Your task to perform on an android device: Go to sound settings Image 0: 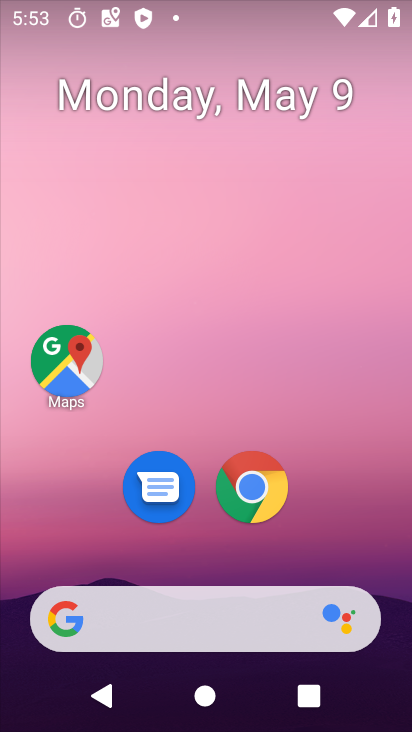
Step 0: drag from (302, 555) to (291, 126)
Your task to perform on an android device: Go to sound settings Image 1: 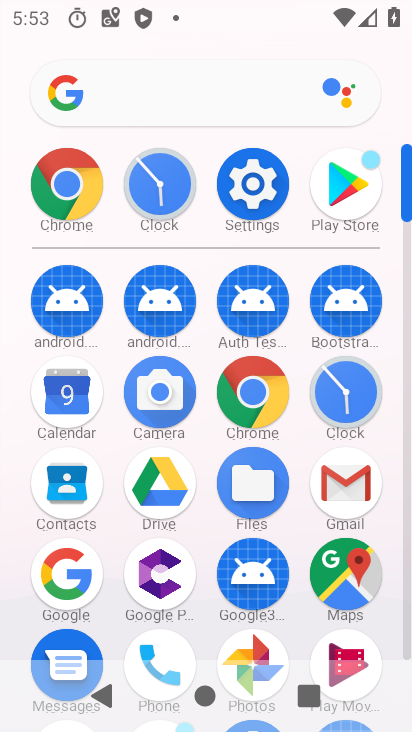
Step 1: click (245, 214)
Your task to perform on an android device: Go to sound settings Image 2: 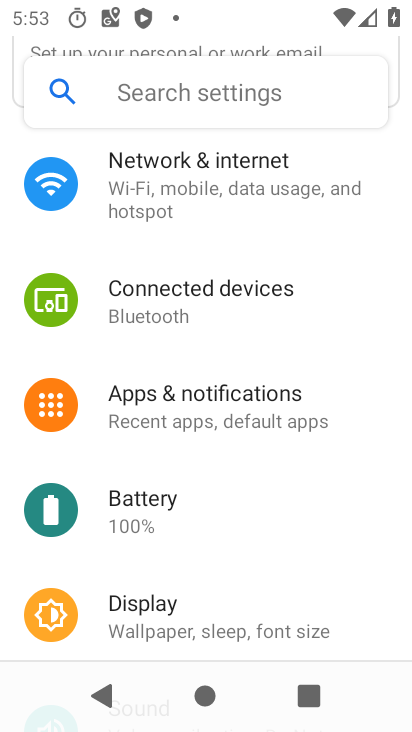
Step 2: drag from (138, 585) to (162, 197)
Your task to perform on an android device: Go to sound settings Image 3: 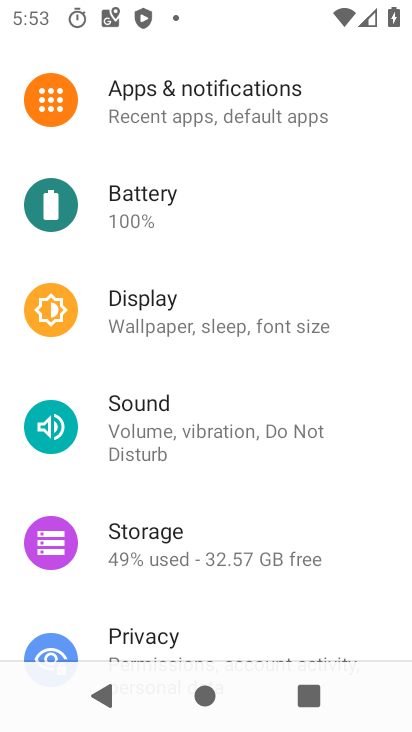
Step 3: click (122, 379)
Your task to perform on an android device: Go to sound settings Image 4: 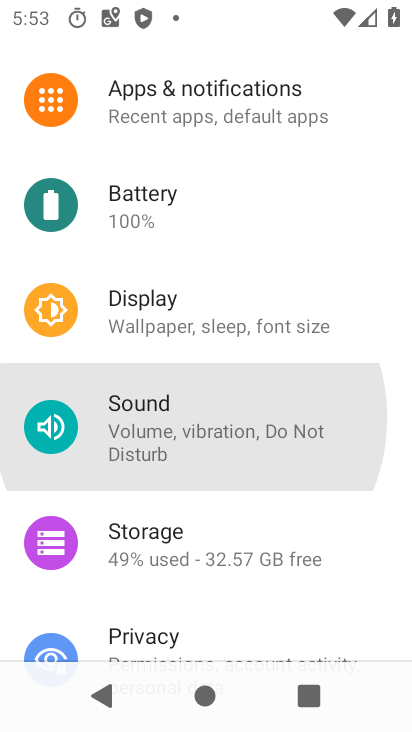
Step 4: click (105, 404)
Your task to perform on an android device: Go to sound settings Image 5: 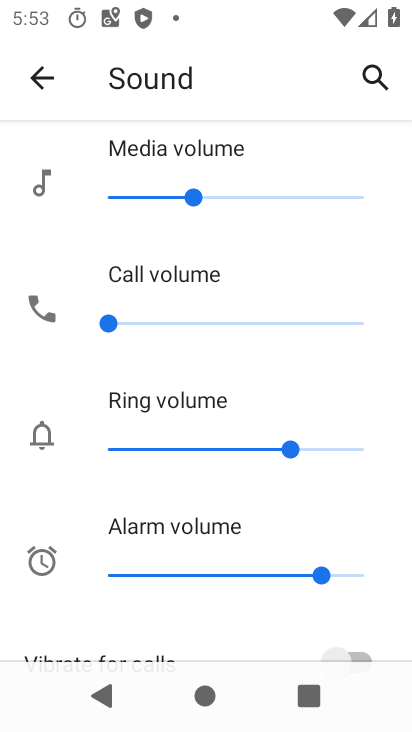
Step 5: task complete